Your task to perform on an android device: delete the emails in spam in the gmail app Image 0: 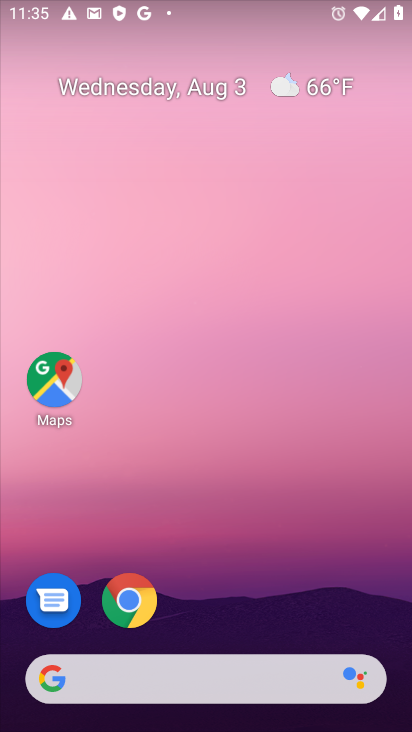
Step 0: drag from (222, 642) to (242, 95)
Your task to perform on an android device: delete the emails in spam in the gmail app Image 1: 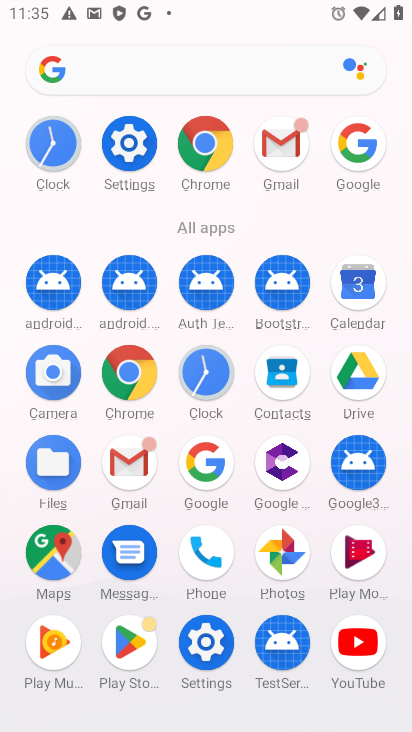
Step 1: click (131, 471)
Your task to perform on an android device: delete the emails in spam in the gmail app Image 2: 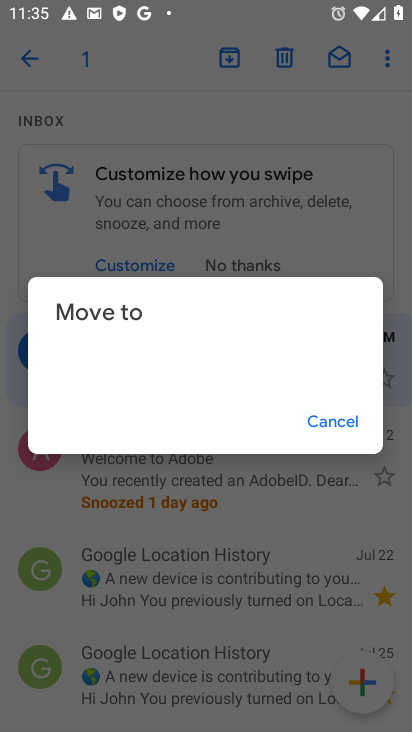
Step 2: click (342, 416)
Your task to perform on an android device: delete the emails in spam in the gmail app Image 3: 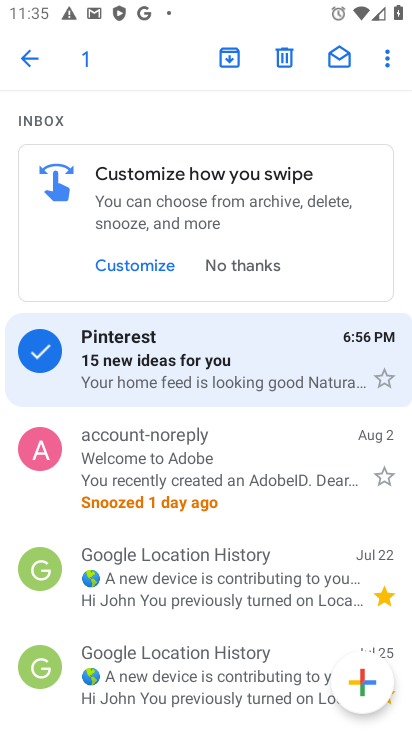
Step 3: click (23, 60)
Your task to perform on an android device: delete the emails in spam in the gmail app Image 4: 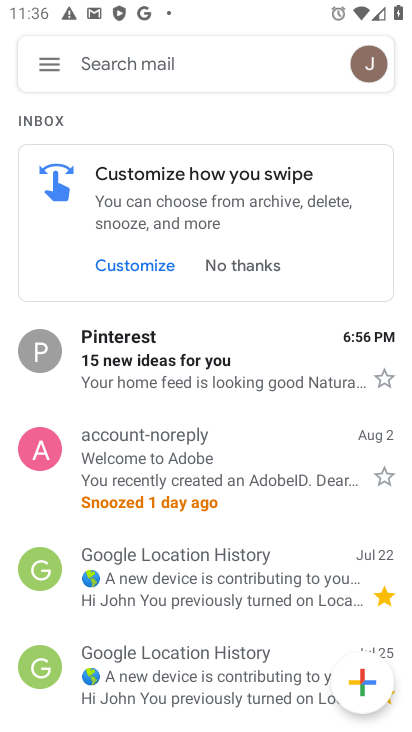
Step 4: click (41, 60)
Your task to perform on an android device: delete the emails in spam in the gmail app Image 5: 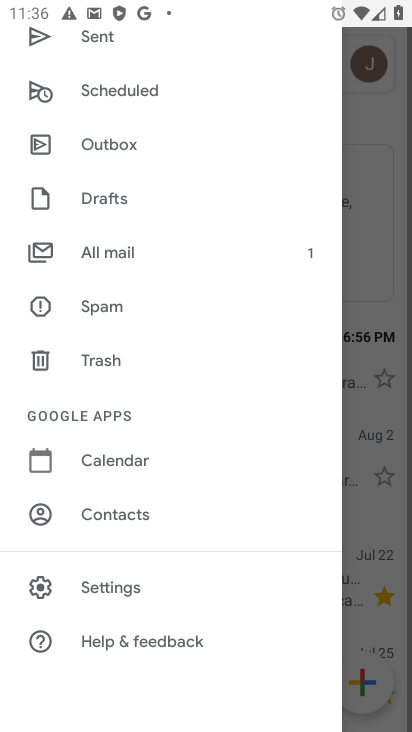
Step 5: click (115, 296)
Your task to perform on an android device: delete the emails in spam in the gmail app Image 6: 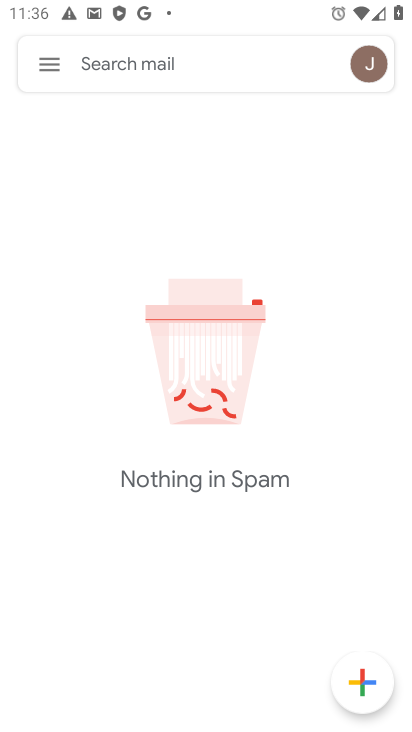
Step 6: task complete